Your task to perform on an android device: find which apps use the phone's location Image 0: 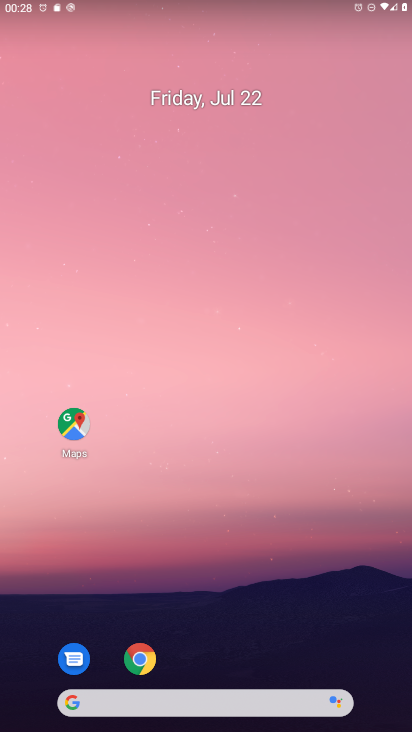
Step 0: drag from (194, 697) to (286, 210)
Your task to perform on an android device: find which apps use the phone's location Image 1: 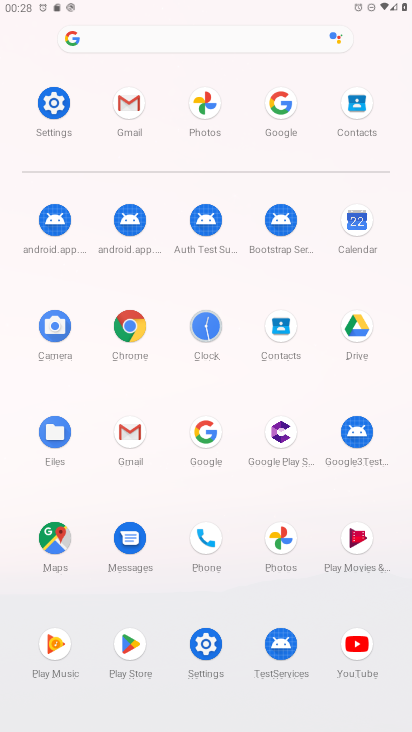
Step 1: click (208, 645)
Your task to perform on an android device: find which apps use the phone's location Image 2: 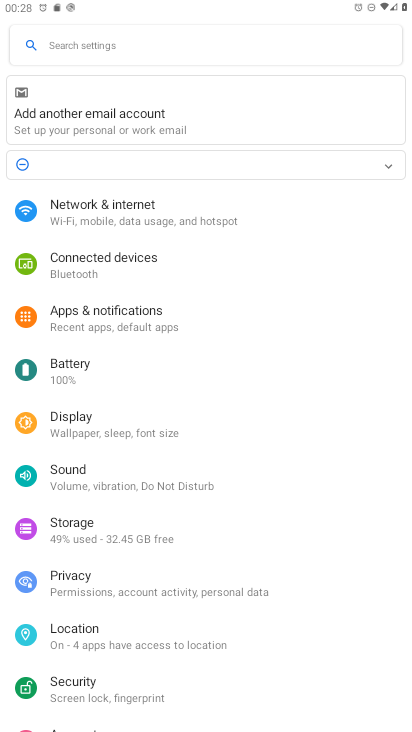
Step 2: click (157, 640)
Your task to perform on an android device: find which apps use the phone's location Image 3: 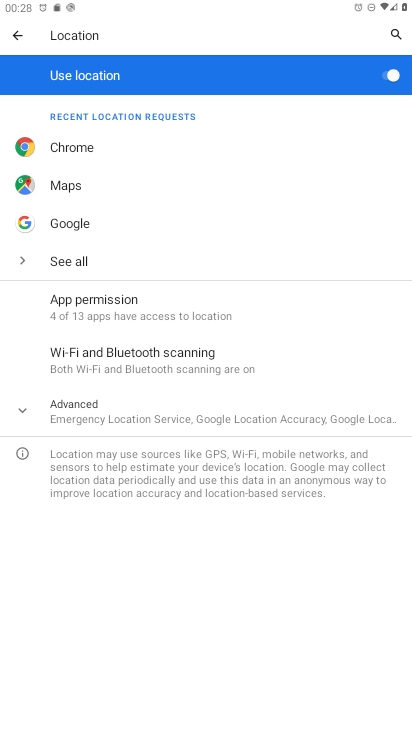
Step 3: click (135, 306)
Your task to perform on an android device: find which apps use the phone's location Image 4: 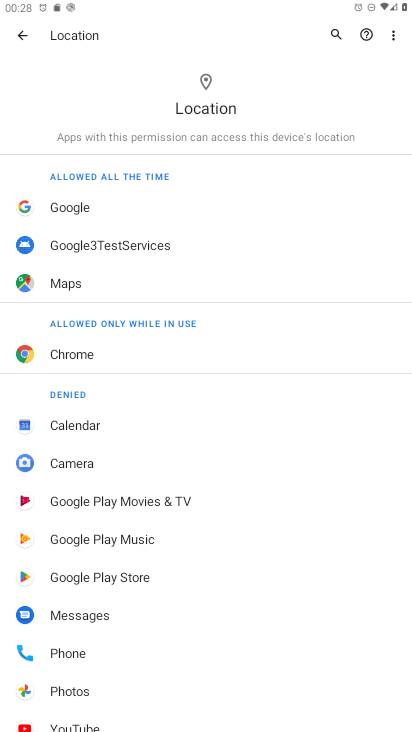
Step 4: click (130, 319)
Your task to perform on an android device: find which apps use the phone's location Image 5: 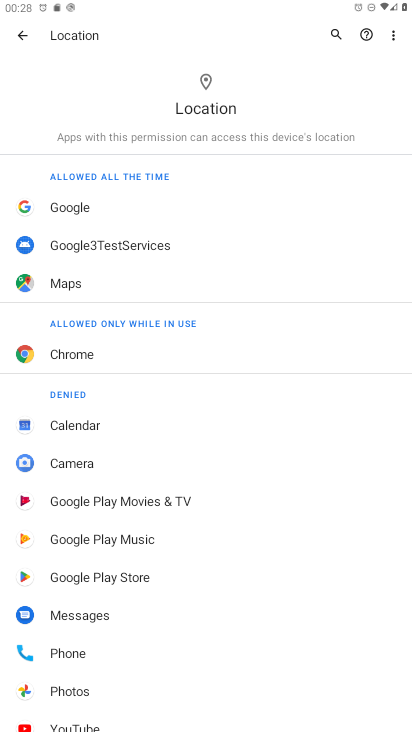
Step 5: click (72, 285)
Your task to perform on an android device: find which apps use the phone's location Image 6: 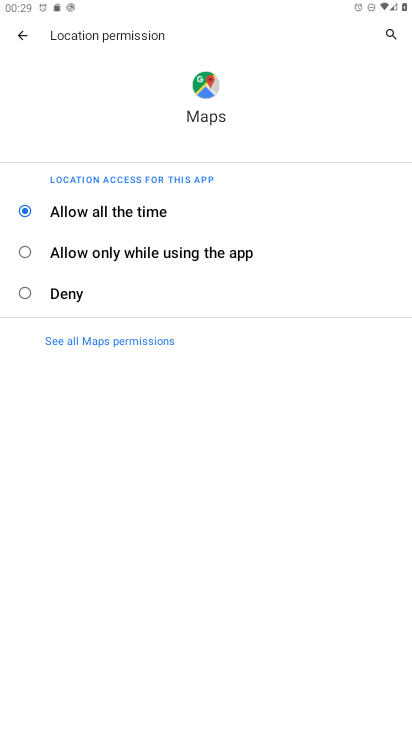
Step 6: task complete